Your task to perform on an android device: turn off translation in the chrome app Image 0: 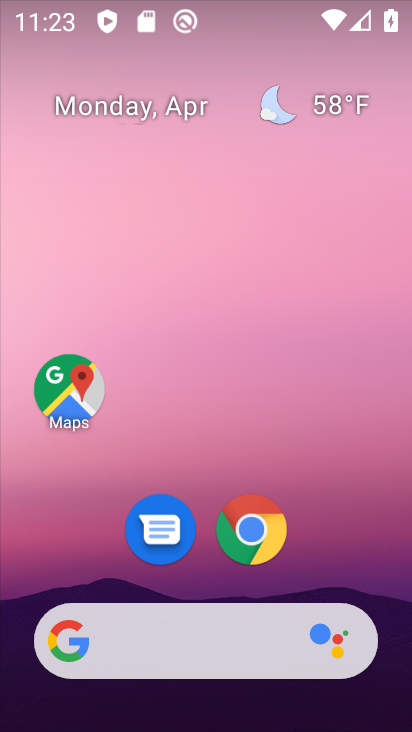
Step 0: drag from (363, 586) to (246, 52)
Your task to perform on an android device: turn off translation in the chrome app Image 1: 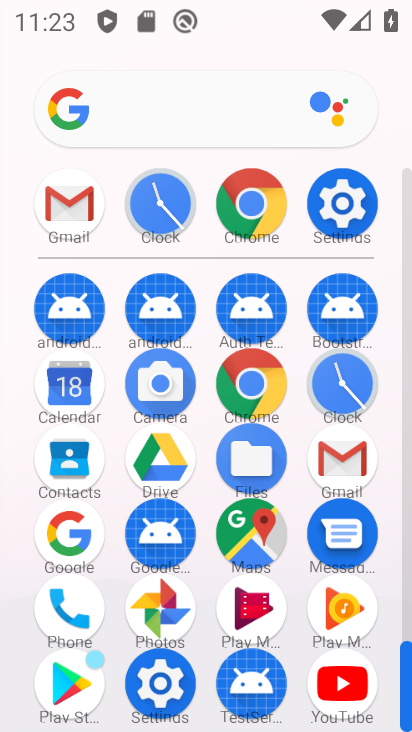
Step 1: click (252, 385)
Your task to perform on an android device: turn off translation in the chrome app Image 2: 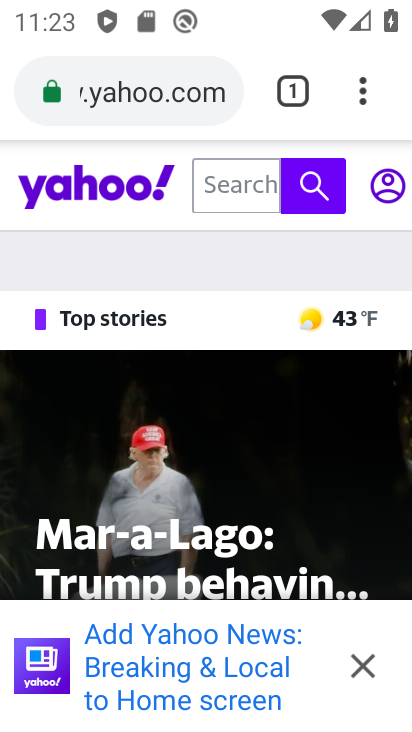
Step 2: press back button
Your task to perform on an android device: turn off translation in the chrome app Image 3: 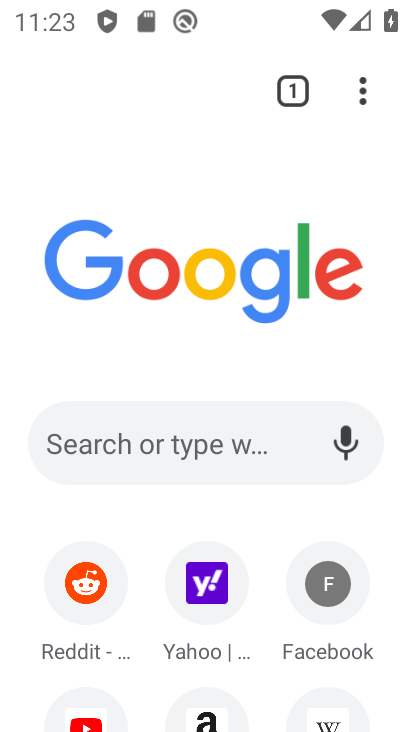
Step 3: click (363, 79)
Your task to perform on an android device: turn off translation in the chrome app Image 4: 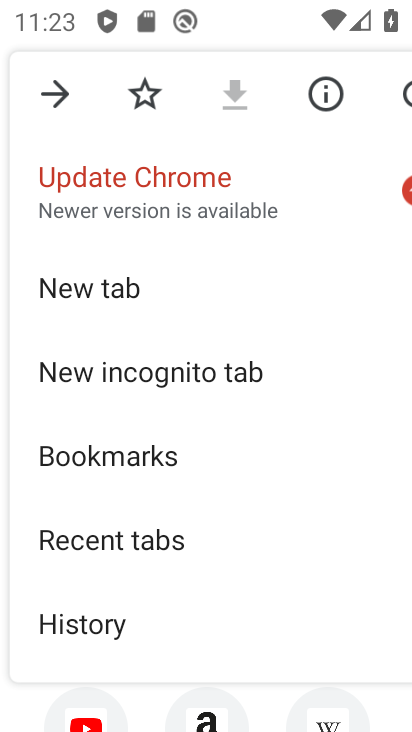
Step 4: drag from (154, 624) to (250, 201)
Your task to perform on an android device: turn off translation in the chrome app Image 5: 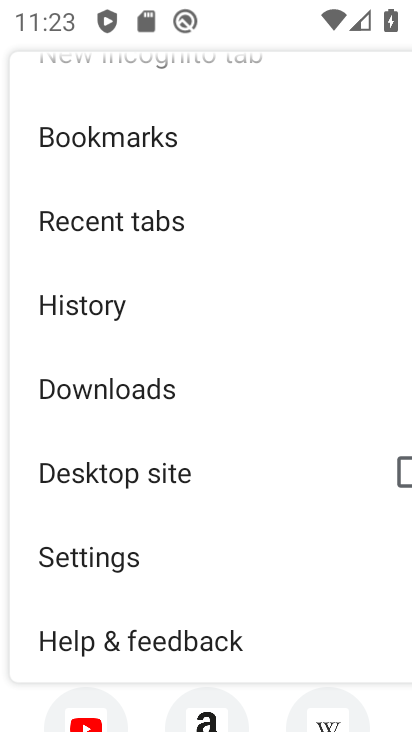
Step 5: click (146, 559)
Your task to perform on an android device: turn off translation in the chrome app Image 6: 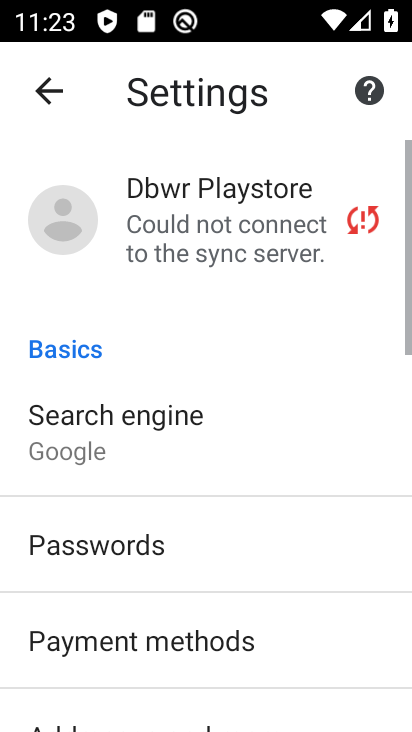
Step 6: drag from (102, 623) to (231, 148)
Your task to perform on an android device: turn off translation in the chrome app Image 7: 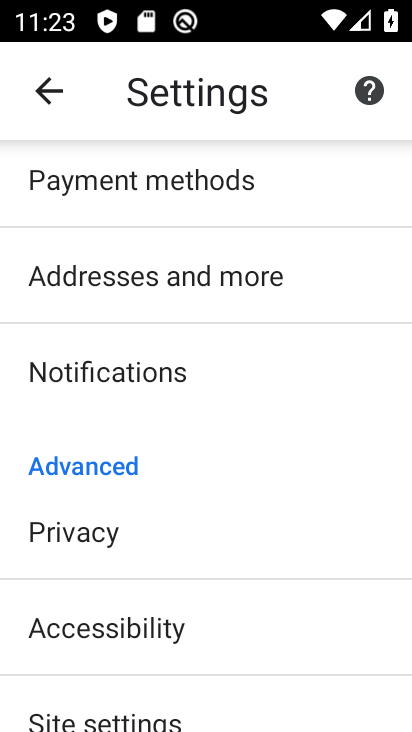
Step 7: drag from (163, 618) to (180, 159)
Your task to perform on an android device: turn off translation in the chrome app Image 8: 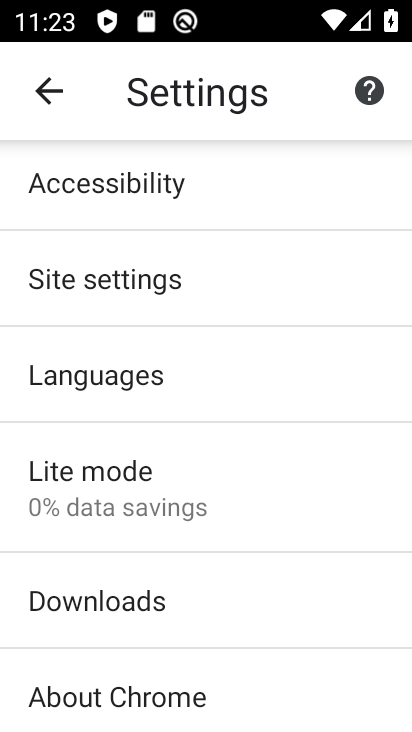
Step 8: click (151, 390)
Your task to perform on an android device: turn off translation in the chrome app Image 9: 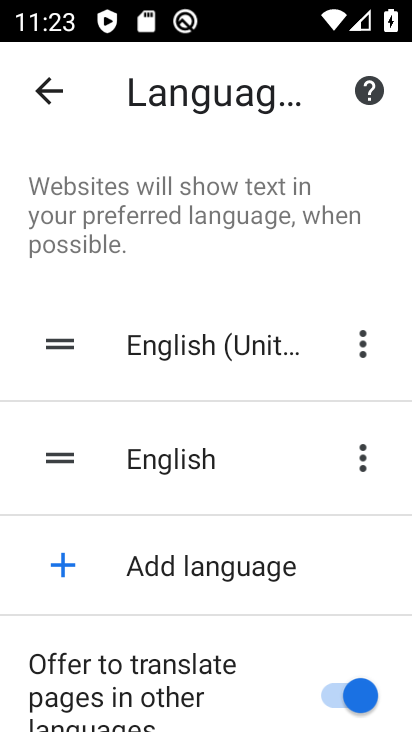
Step 9: drag from (147, 656) to (244, 285)
Your task to perform on an android device: turn off translation in the chrome app Image 10: 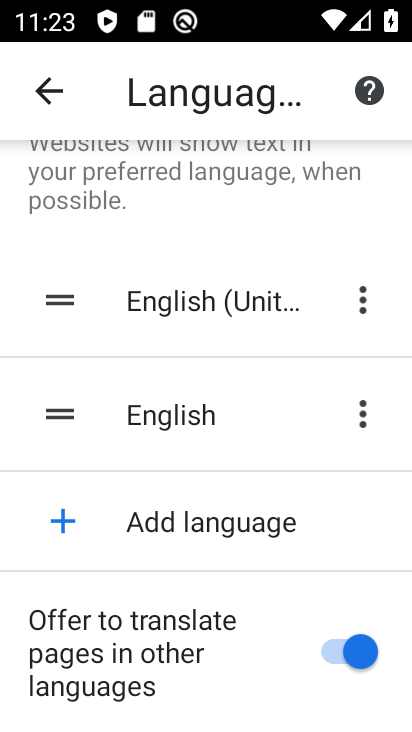
Step 10: click (285, 628)
Your task to perform on an android device: turn off translation in the chrome app Image 11: 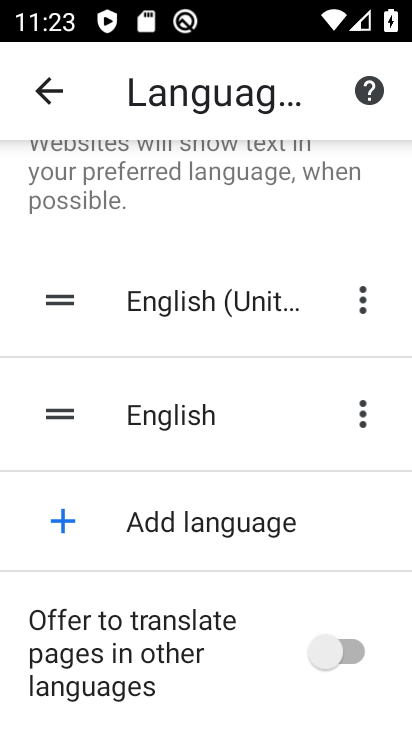
Step 11: task complete